Your task to perform on an android device: clear history in the chrome app Image 0: 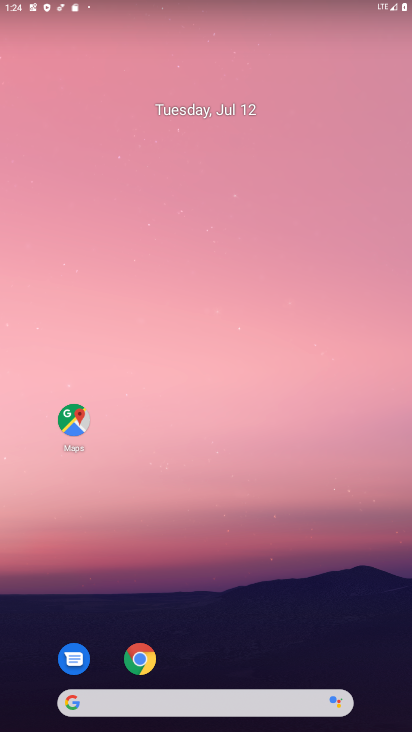
Step 0: click (137, 667)
Your task to perform on an android device: clear history in the chrome app Image 1: 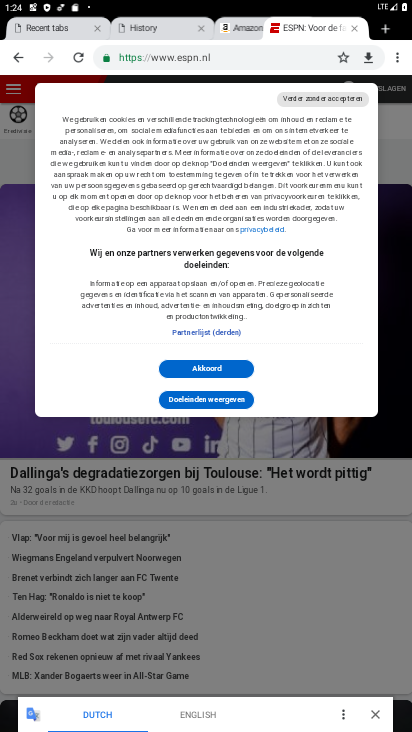
Step 1: click (399, 59)
Your task to perform on an android device: clear history in the chrome app Image 2: 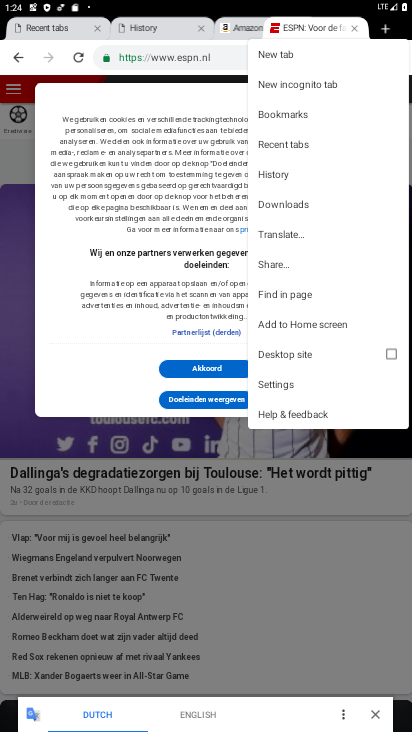
Step 2: click (276, 178)
Your task to perform on an android device: clear history in the chrome app Image 3: 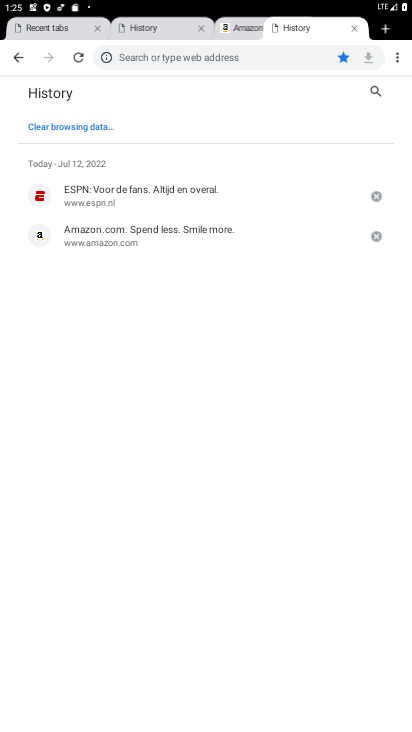
Step 3: click (397, 59)
Your task to perform on an android device: clear history in the chrome app Image 4: 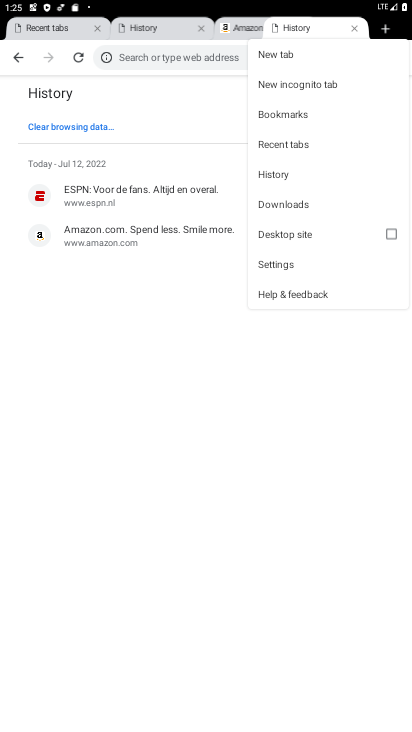
Step 4: click (276, 174)
Your task to perform on an android device: clear history in the chrome app Image 5: 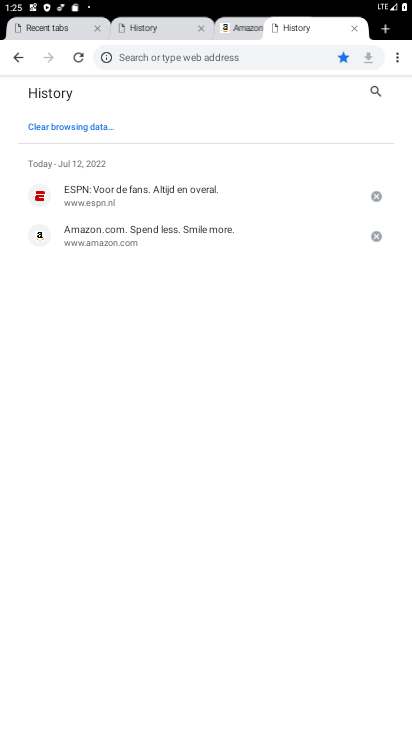
Step 5: click (71, 124)
Your task to perform on an android device: clear history in the chrome app Image 6: 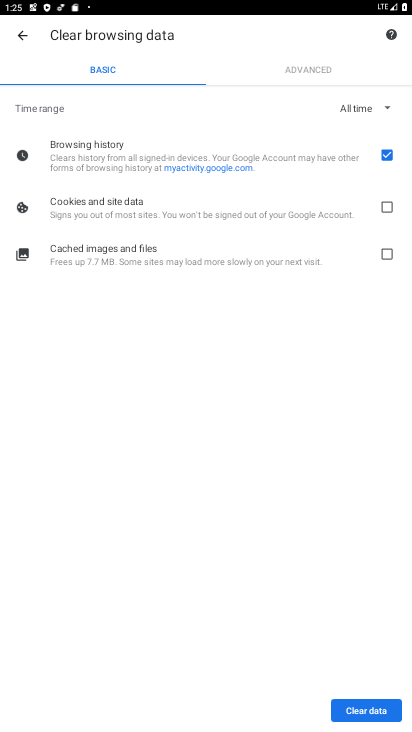
Step 6: click (362, 715)
Your task to perform on an android device: clear history in the chrome app Image 7: 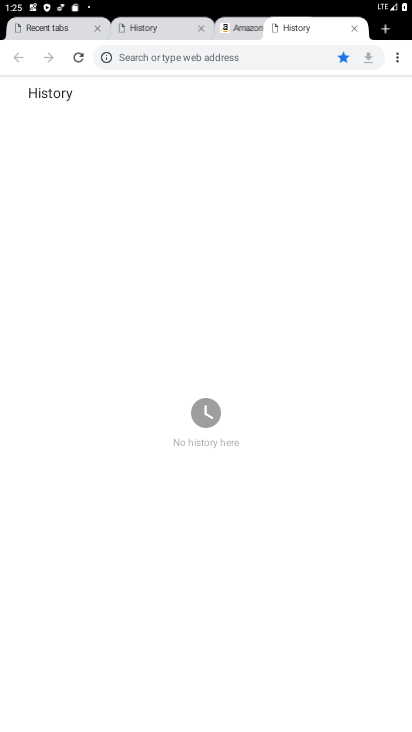
Step 7: task complete